Your task to perform on an android device: What is the news today? Image 0: 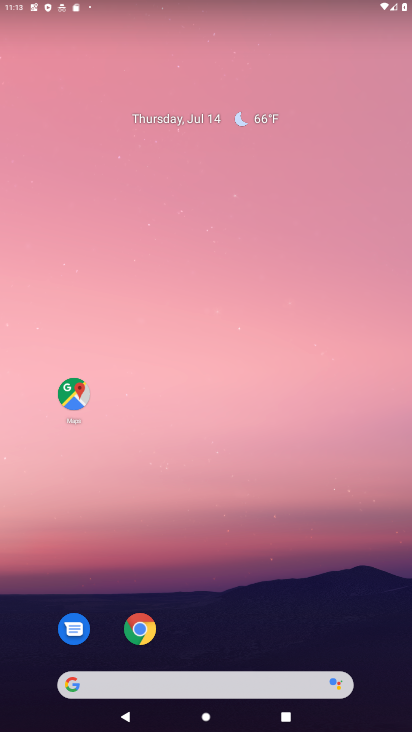
Step 0: click (71, 685)
Your task to perform on an android device: What is the news today? Image 1: 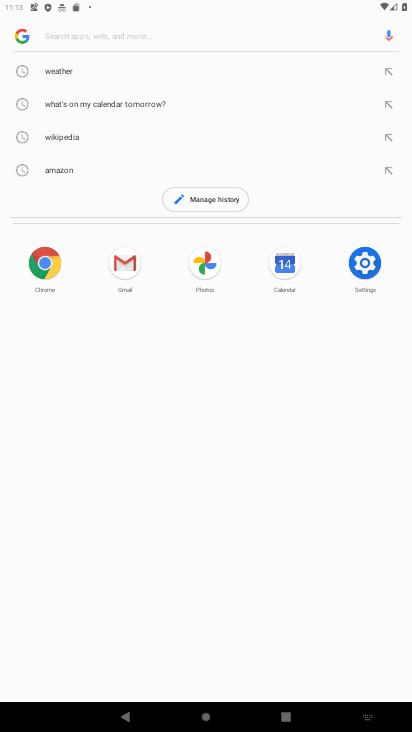
Step 1: type "What is the news today?"
Your task to perform on an android device: What is the news today? Image 2: 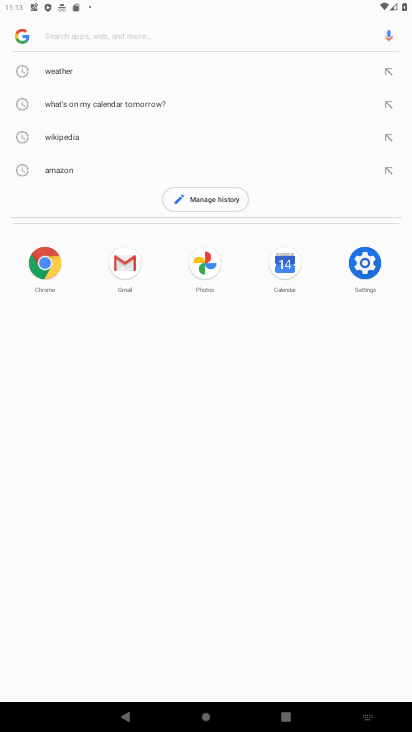
Step 2: click (88, 29)
Your task to perform on an android device: What is the news today? Image 3: 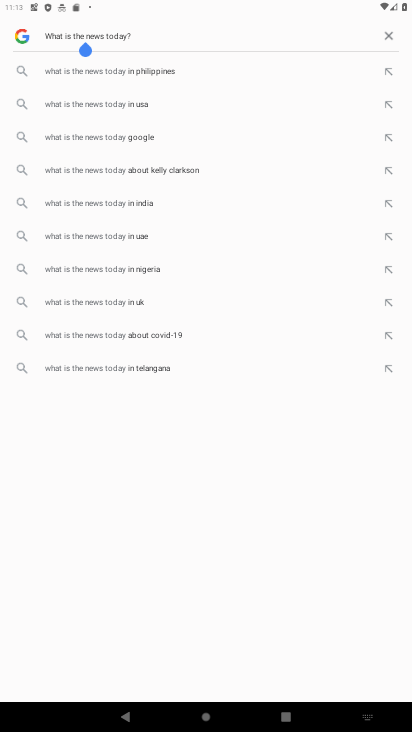
Step 3: press enter
Your task to perform on an android device: What is the news today? Image 4: 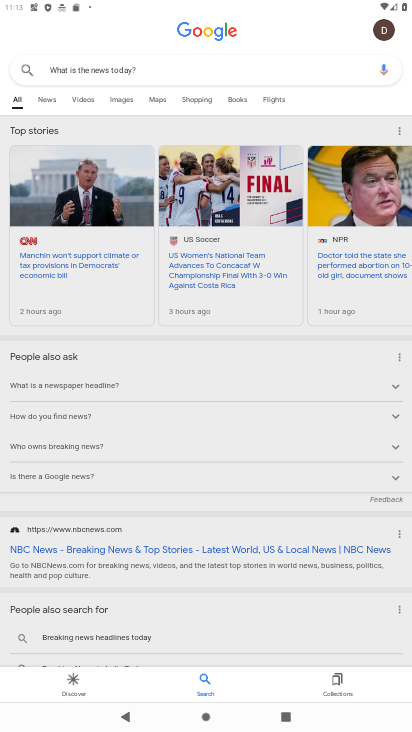
Step 4: task complete